Your task to perform on an android device: toggle javascript in the chrome app Image 0: 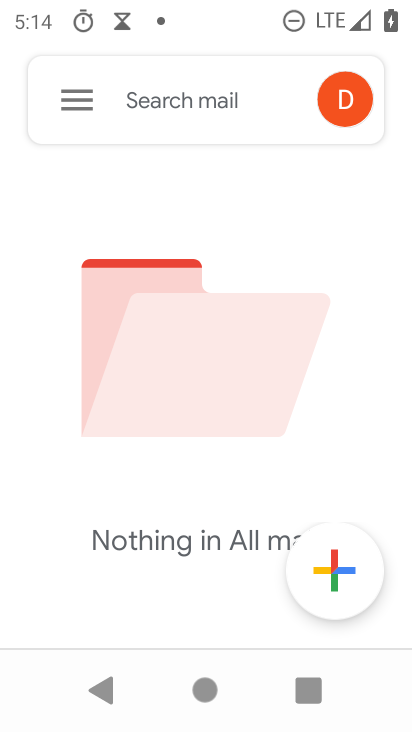
Step 0: press home button
Your task to perform on an android device: toggle javascript in the chrome app Image 1: 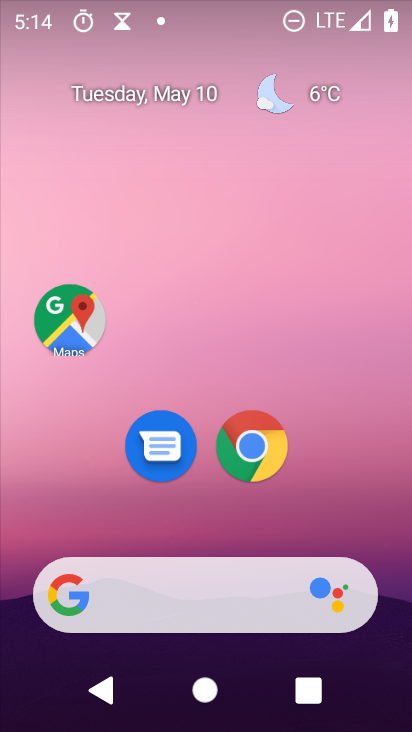
Step 1: click (251, 449)
Your task to perform on an android device: toggle javascript in the chrome app Image 2: 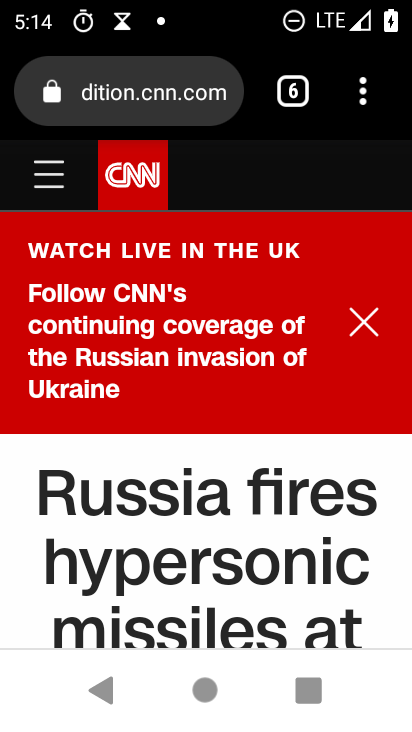
Step 2: click (364, 89)
Your task to perform on an android device: toggle javascript in the chrome app Image 3: 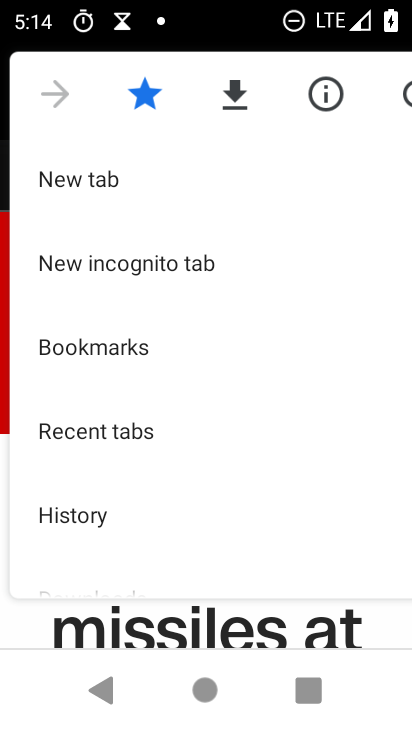
Step 3: drag from (202, 496) to (177, 128)
Your task to perform on an android device: toggle javascript in the chrome app Image 4: 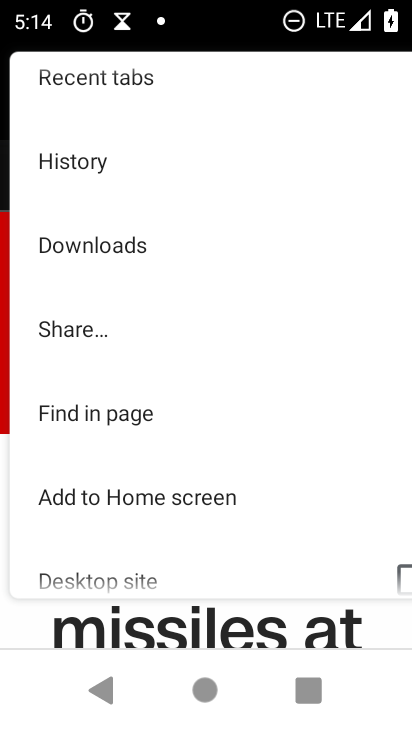
Step 4: drag from (179, 534) to (160, 206)
Your task to perform on an android device: toggle javascript in the chrome app Image 5: 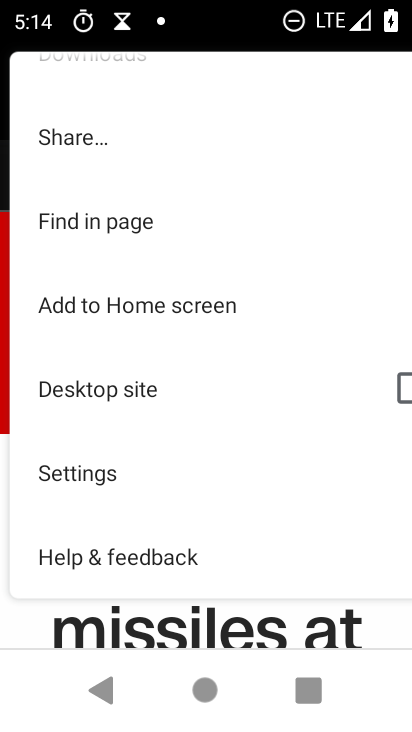
Step 5: click (136, 482)
Your task to perform on an android device: toggle javascript in the chrome app Image 6: 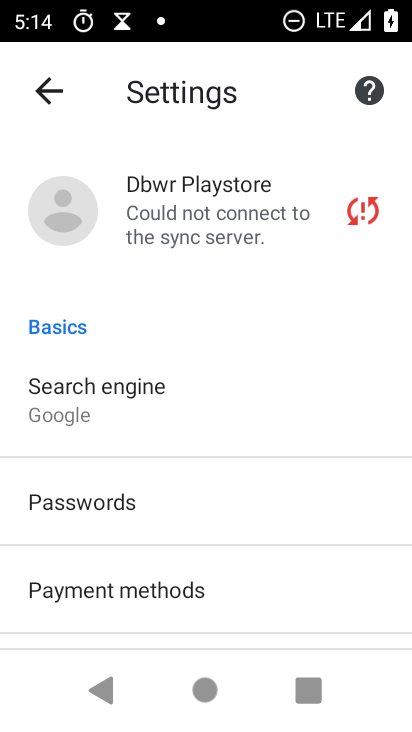
Step 6: drag from (221, 526) to (201, 249)
Your task to perform on an android device: toggle javascript in the chrome app Image 7: 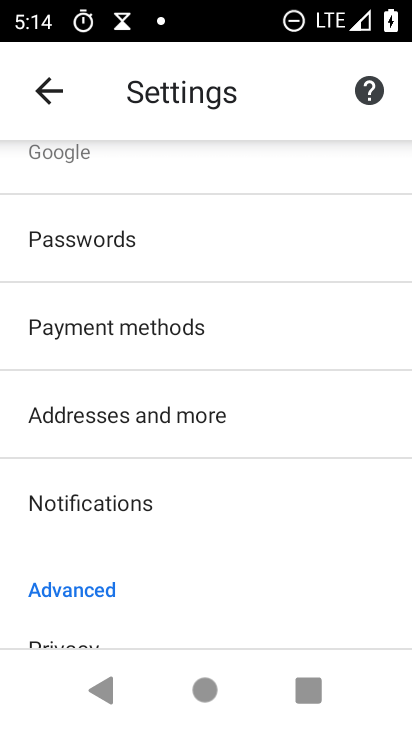
Step 7: drag from (205, 459) to (214, 190)
Your task to perform on an android device: toggle javascript in the chrome app Image 8: 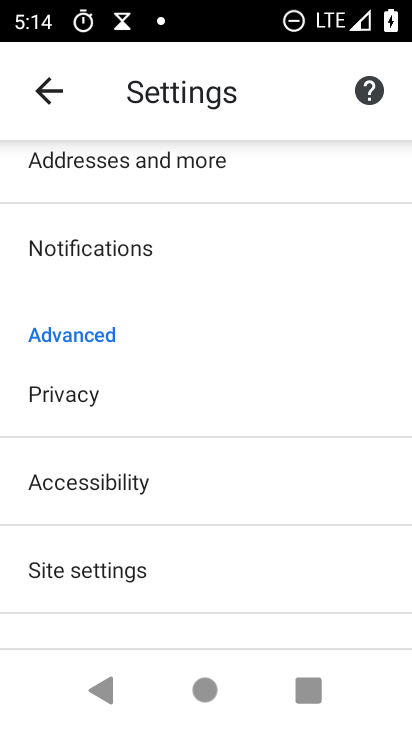
Step 8: click (133, 568)
Your task to perform on an android device: toggle javascript in the chrome app Image 9: 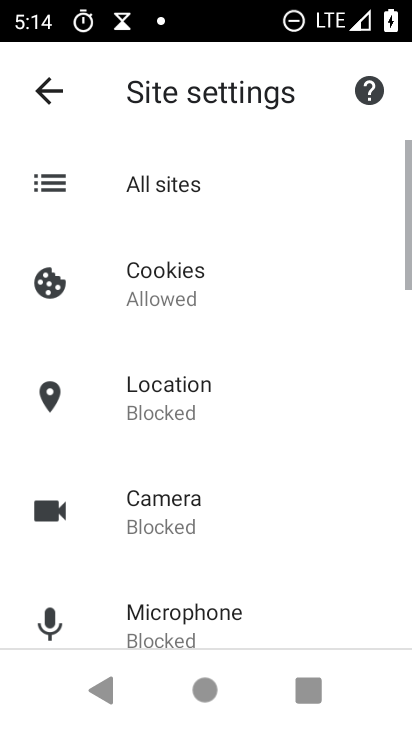
Step 9: drag from (197, 528) to (209, 202)
Your task to perform on an android device: toggle javascript in the chrome app Image 10: 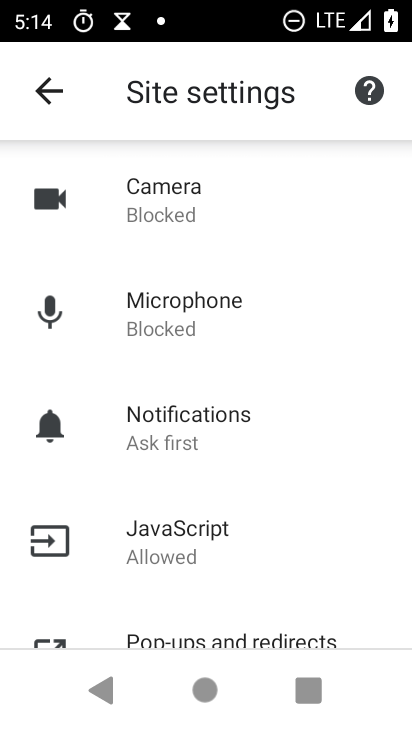
Step 10: click (210, 526)
Your task to perform on an android device: toggle javascript in the chrome app Image 11: 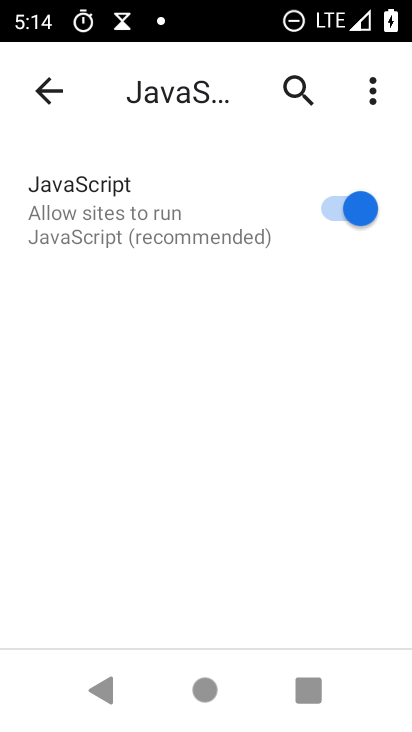
Step 11: click (364, 205)
Your task to perform on an android device: toggle javascript in the chrome app Image 12: 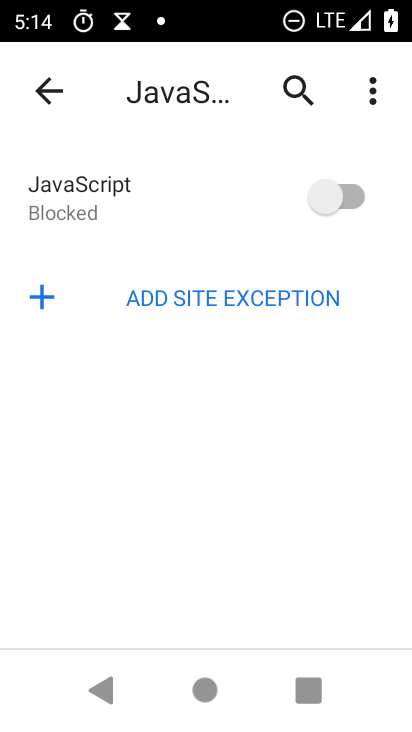
Step 12: task complete